Your task to perform on an android device: Is it going to rain this weekend? Image 0: 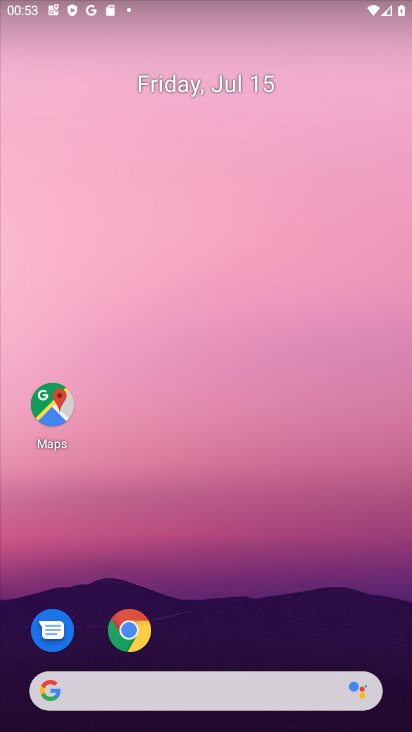
Step 0: click (229, 674)
Your task to perform on an android device: Is it going to rain this weekend? Image 1: 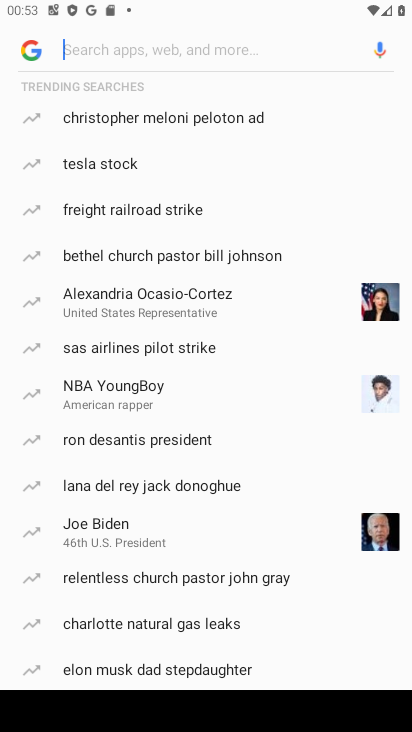
Step 1: type "weather"
Your task to perform on an android device: Is it going to rain this weekend? Image 2: 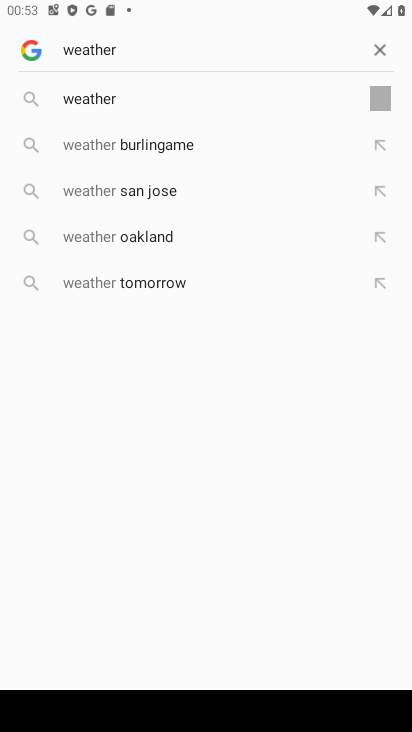
Step 2: click (174, 108)
Your task to perform on an android device: Is it going to rain this weekend? Image 3: 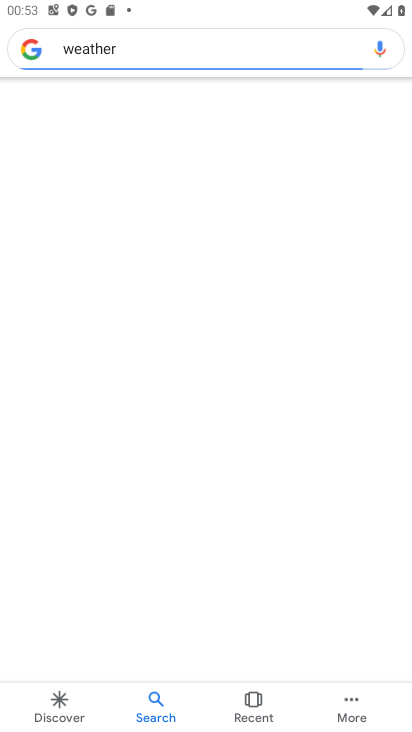
Step 3: task complete